Your task to perform on an android device: check the backup settings in the google photos Image 0: 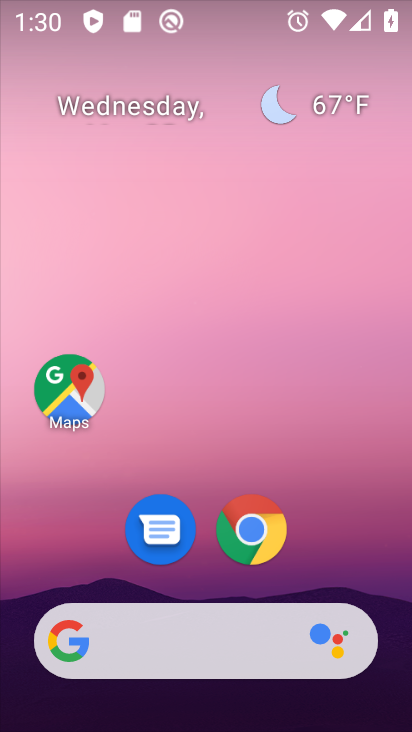
Step 0: drag from (334, 531) to (243, 68)
Your task to perform on an android device: check the backup settings in the google photos Image 1: 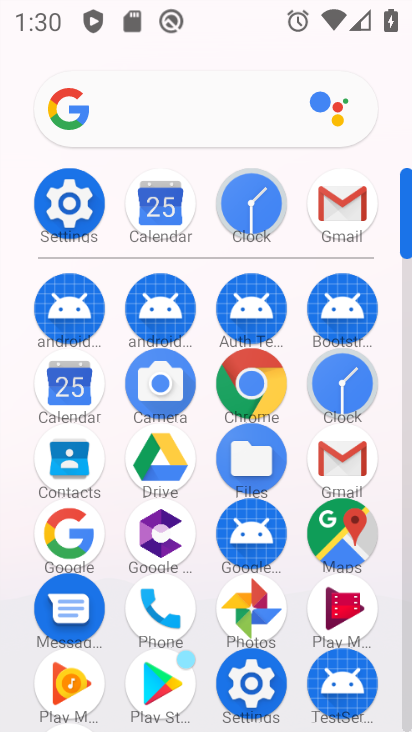
Step 1: drag from (206, 505) to (211, 205)
Your task to perform on an android device: check the backup settings in the google photos Image 2: 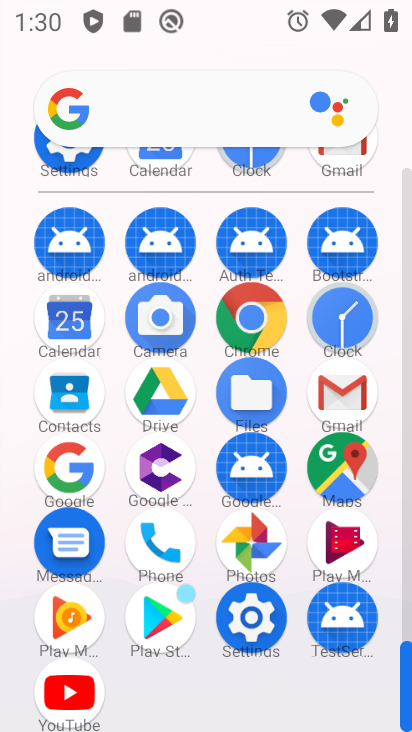
Step 2: click (251, 540)
Your task to perform on an android device: check the backup settings in the google photos Image 3: 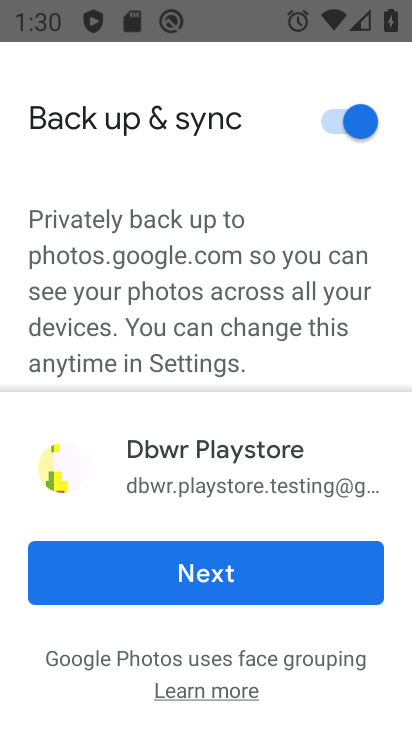
Step 3: click (230, 572)
Your task to perform on an android device: check the backup settings in the google photos Image 4: 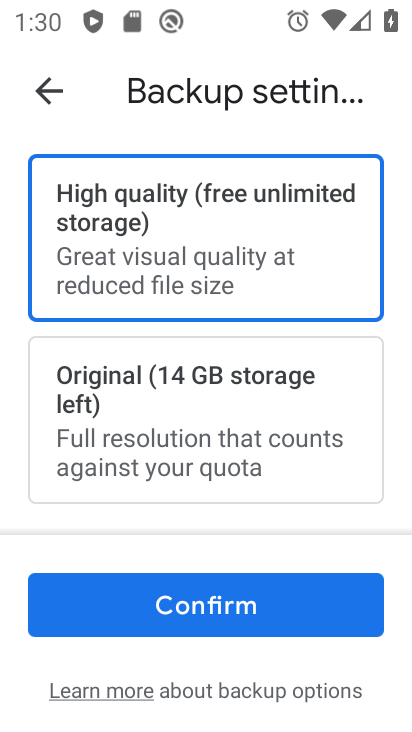
Step 4: click (228, 594)
Your task to perform on an android device: check the backup settings in the google photos Image 5: 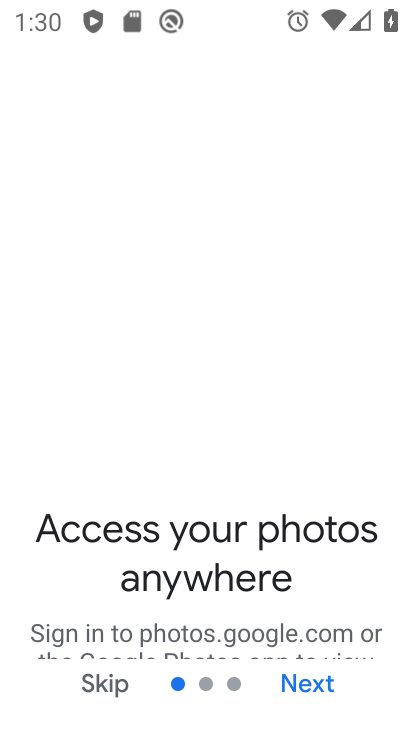
Step 5: click (291, 677)
Your task to perform on an android device: check the backup settings in the google photos Image 6: 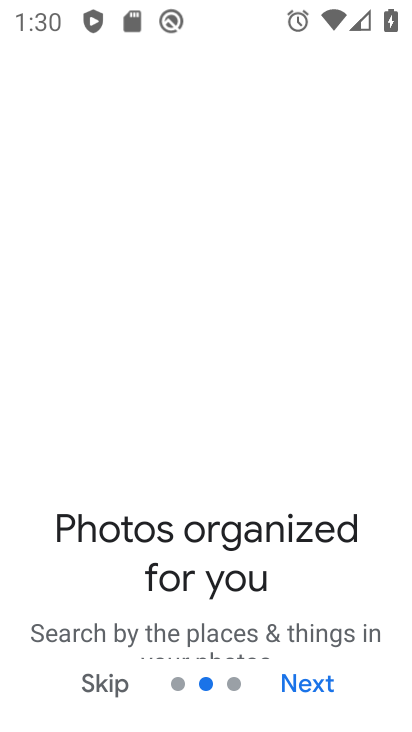
Step 6: click (291, 677)
Your task to perform on an android device: check the backup settings in the google photos Image 7: 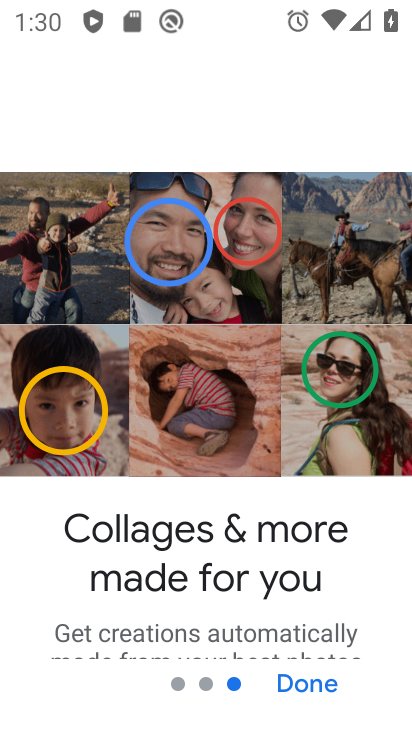
Step 7: click (291, 677)
Your task to perform on an android device: check the backup settings in the google photos Image 8: 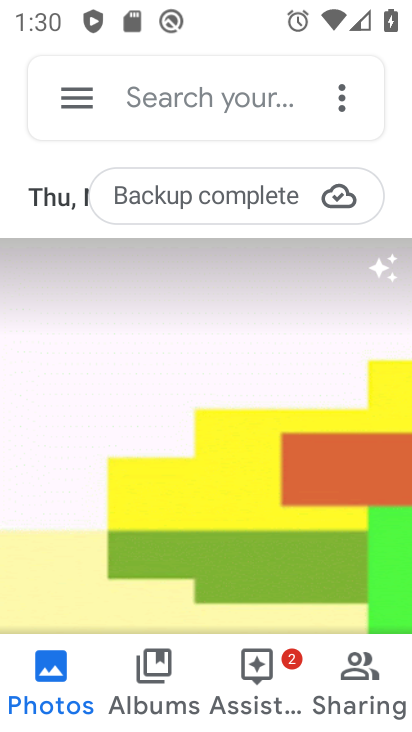
Step 8: click (77, 110)
Your task to perform on an android device: check the backup settings in the google photos Image 9: 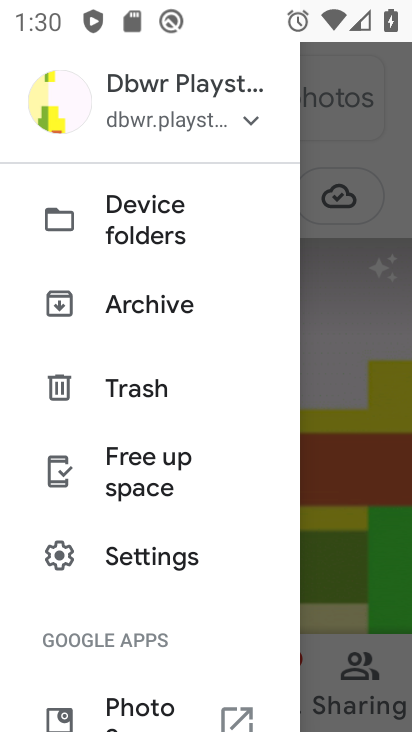
Step 9: click (145, 561)
Your task to perform on an android device: check the backup settings in the google photos Image 10: 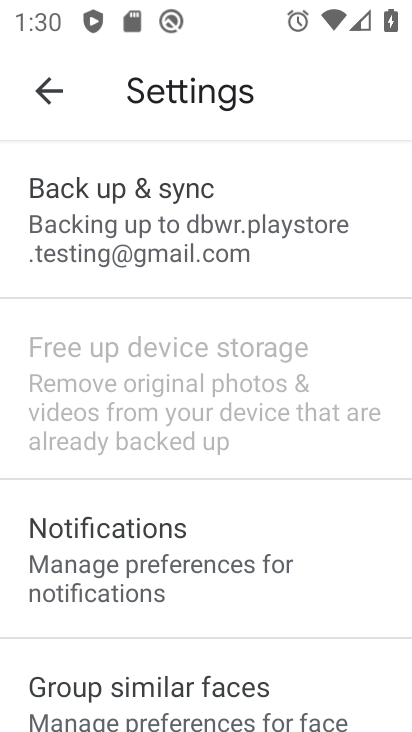
Step 10: click (155, 196)
Your task to perform on an android device: check the backup settings in the google photos Image 11: 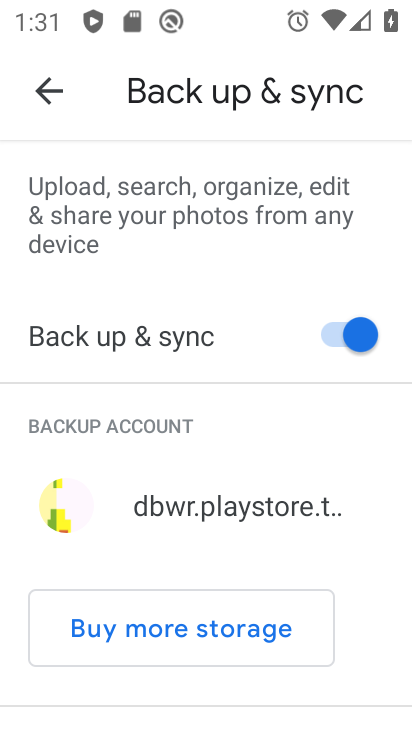
Step 11: task complete